Your task to perform on an android device: Go to Yahoo.com Image 0: 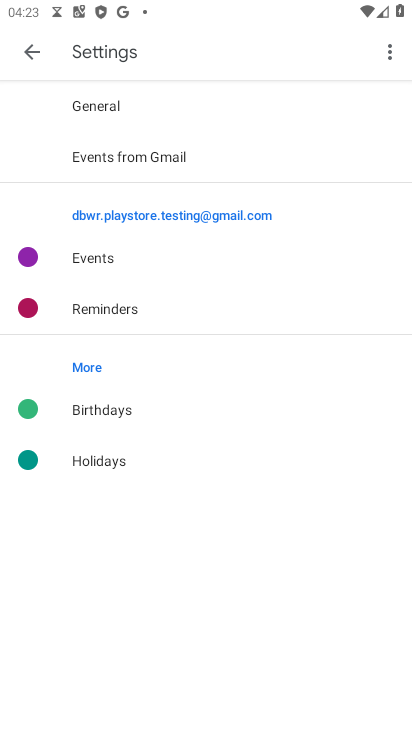
Step 0: press home button
Your task to perform on an android device: Go to Yahoo.com Image 1: 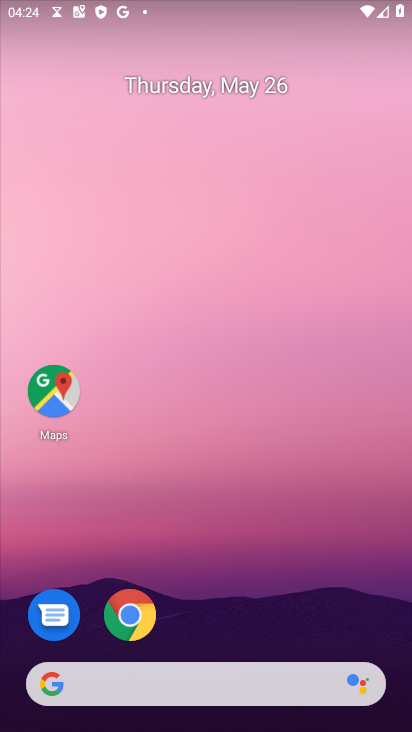
Step 1: click (125, 610)
Your task to perform on an android device: Go to Yahoo.com Image 2: 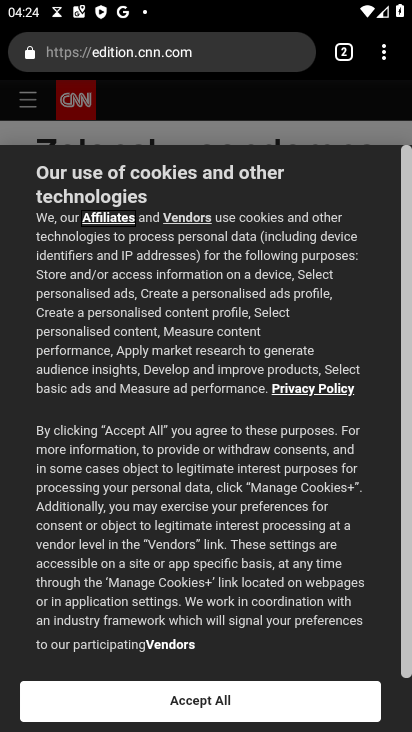
Step 2: click (166, 58)
Your task to perform on an android device: Go to Yahoo.com Image 3: 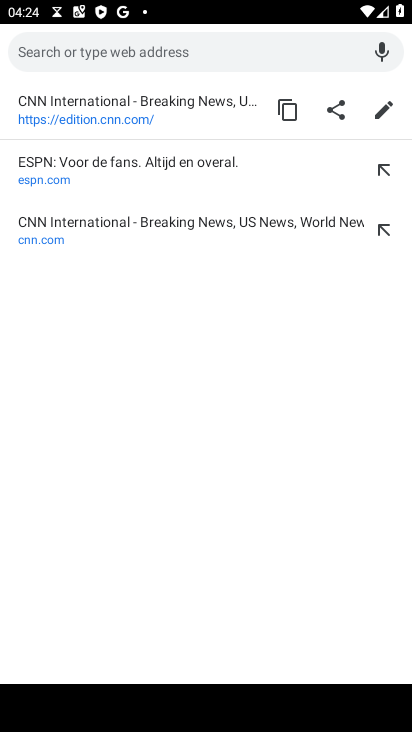
Step 3: click (124, 56)
Your task to perform on an android device: Go to Yahoo.com Image 4: 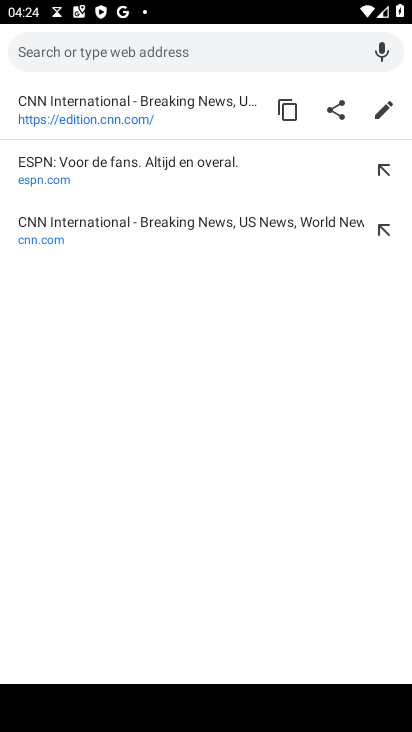
Step 4: type "www.yahoo.com"
Your task to perform on an android device: Go to Yahoo.com Image 5: 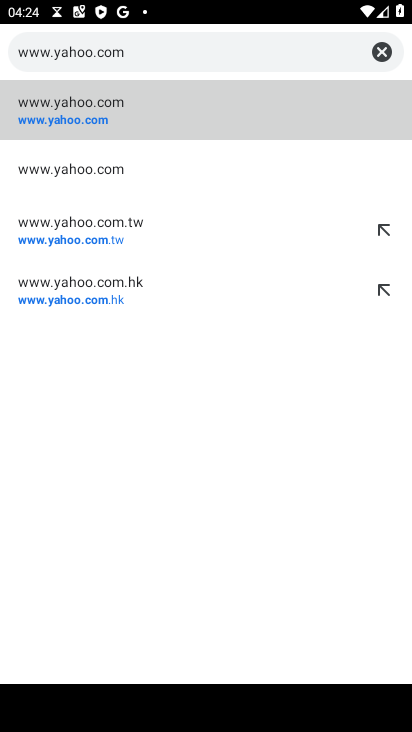
Step 5: click (108, 109)
Your task to perform on an android device: Go to Yahoo.com Image 6: 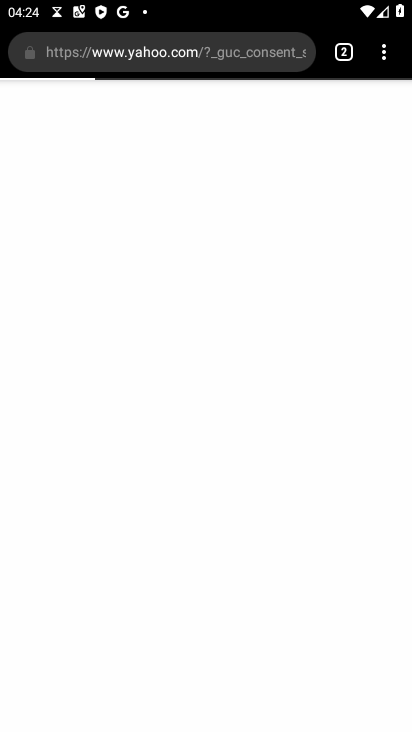
Step 6: click (63, 109)
Your task to perform on an android device: Go to Yahoo.com Image 7: 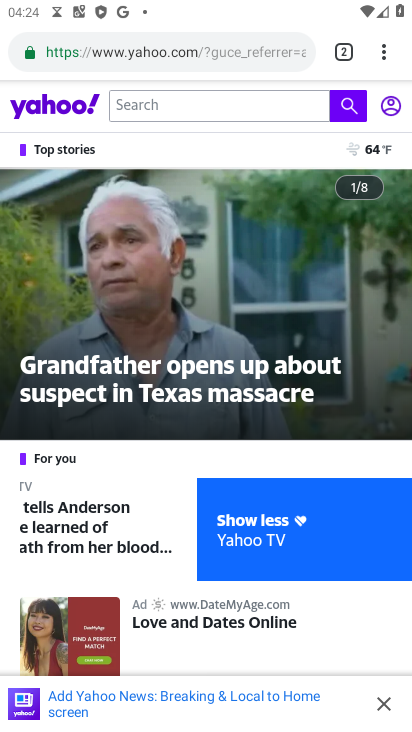
Step 7: task complete